Your task to perform on an android device: turn on showing notifications on the lock screen Image 0: 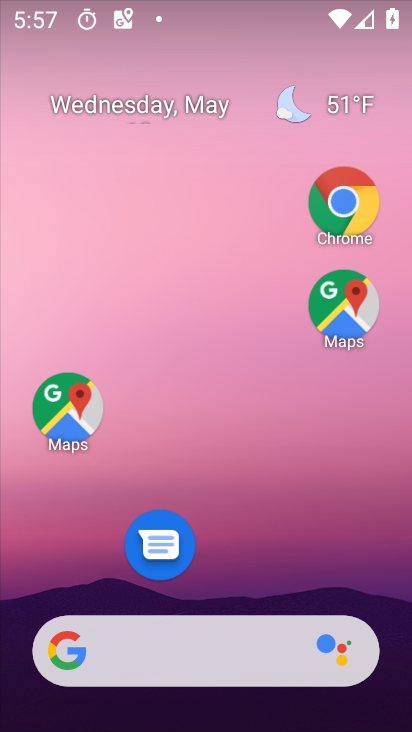
Step 0: press home button
Your task to perform on an android device: turn on showing notifications on the lock screen Image 1: 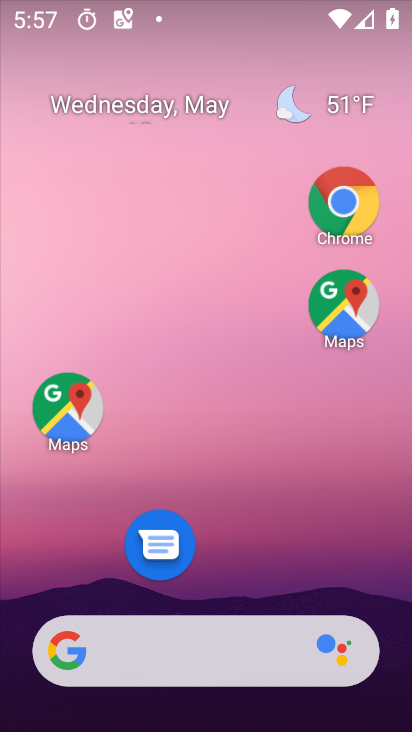
Step 1: drag from (293, 585) to (295, 239)
Your task to perform on an android device: turn on showing notifications on the lock screen Image 2: 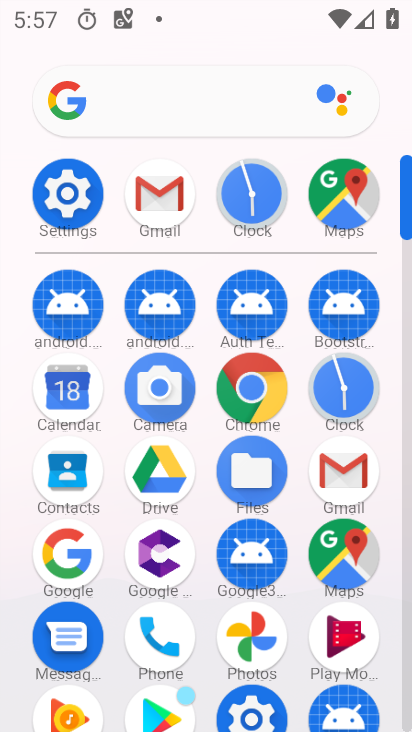
Step 2: click (69, 203)
Your task to perform on an android device: turn on showing notifications on the lock screen Image 3: 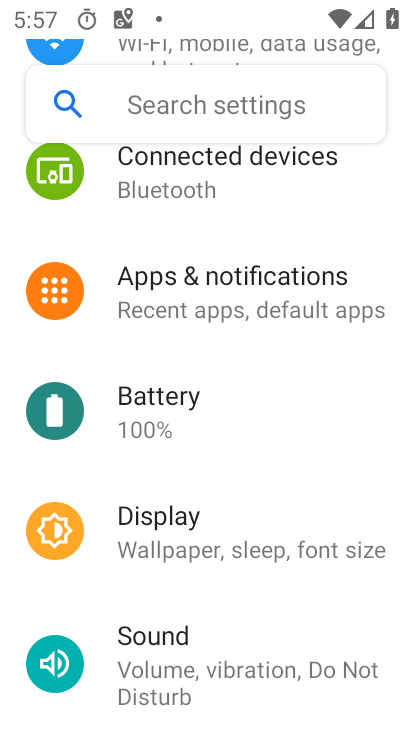
Step 3: drag from (161, 617) to (136, 331)
Your task to perform on an android device: turn on showing notifications on the lock screen Image 4: 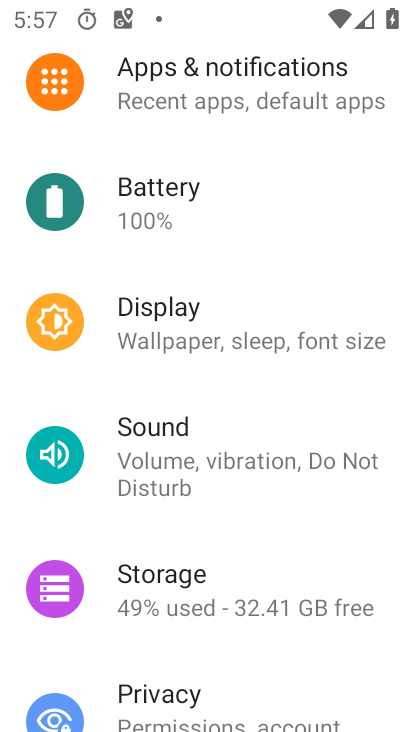
Step 4: drag from (197, 575) to (237, 245)
Your task to perform on an android device: turn on showing notifications on the lock screen Image 5: 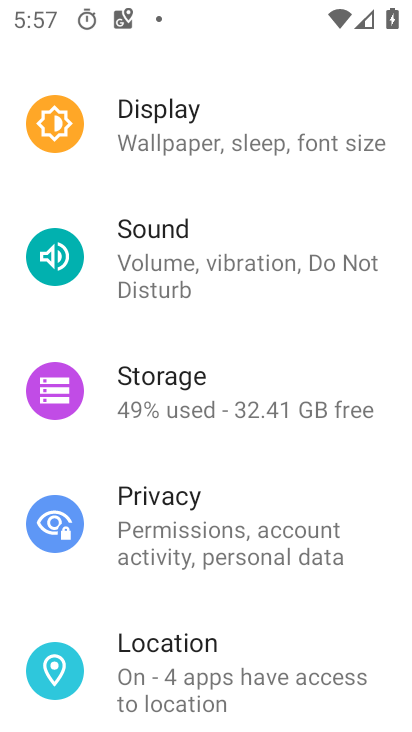
Step 5: drag from (235, 278) to (195, 590)
Your task to perform on an android device: turn on showing notifications on the lock screen Image 6: 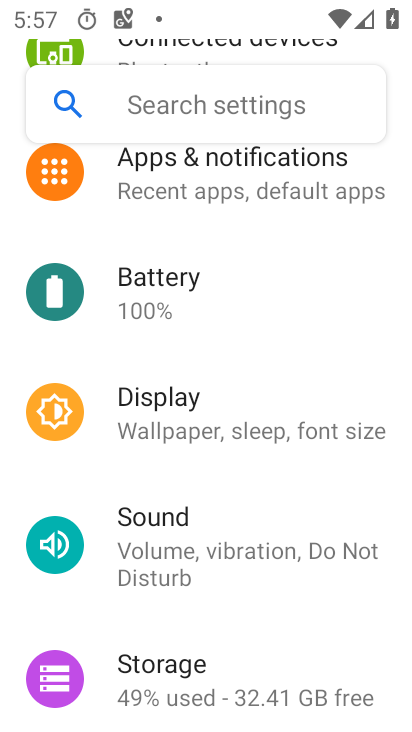
Step 6: click (183, 186)
Your task to perform on an android device: turn on showing notifications on the lock screen Image 7: 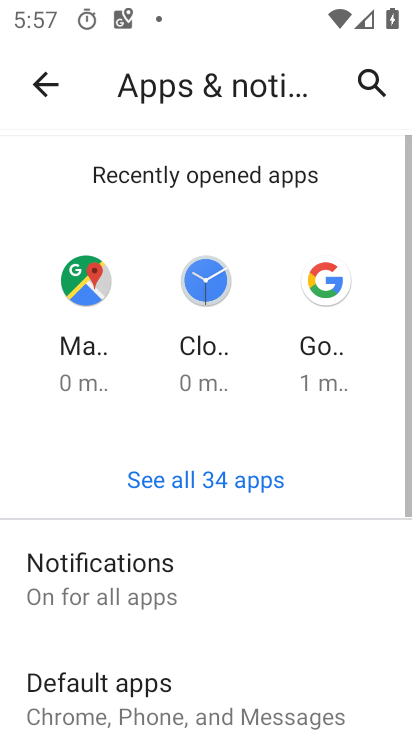
Step 7: click (100, 596)
Your task to perform on an android device: turn on showing notifications on the lock screen Image 8: 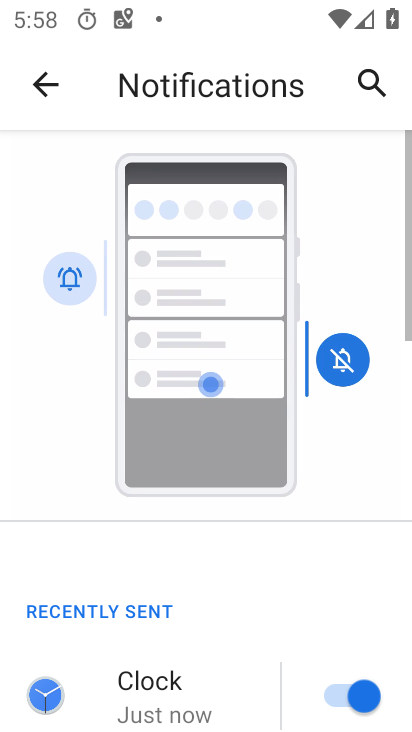
Step 8: drag from (188, 675) to (197, 335)
Your task to perform on an android device: turn on showing notifications on the lock screen Image 9: 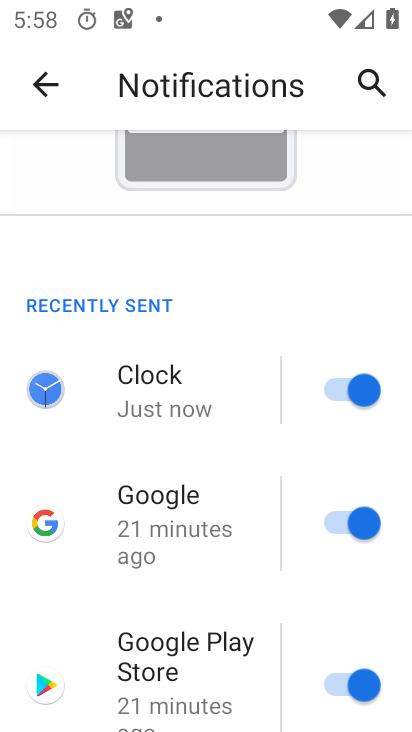
Step 9: drag from (194, 638) to (201, 285)
Your task to perform on an android device: turn on showing notifications on the lock screen Image 10: 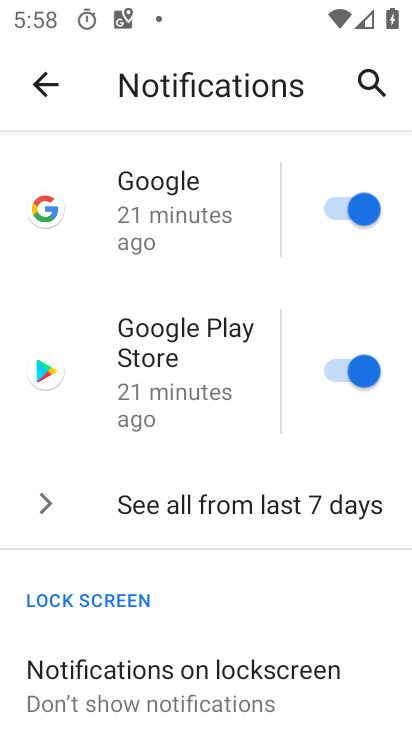
Step 10: drag from (154, 632) to (175, 380)
Your task to perform on an android device: turn on showing notifications on the lock screen Image 11: 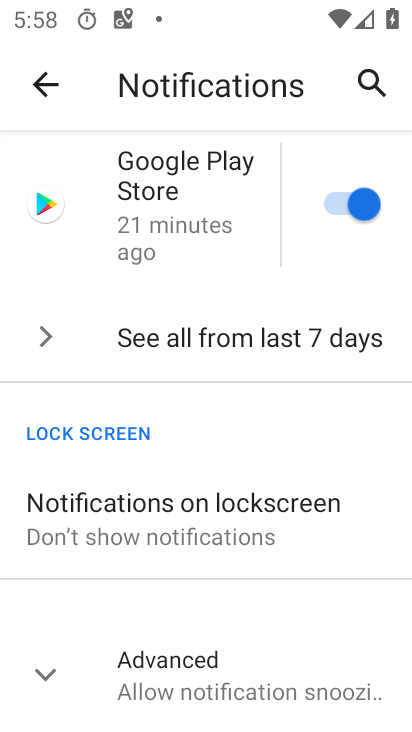
Step 11: click (146, 521)
Your task to perform on an android device: turn on showing notifications on the lock screen Image 12: 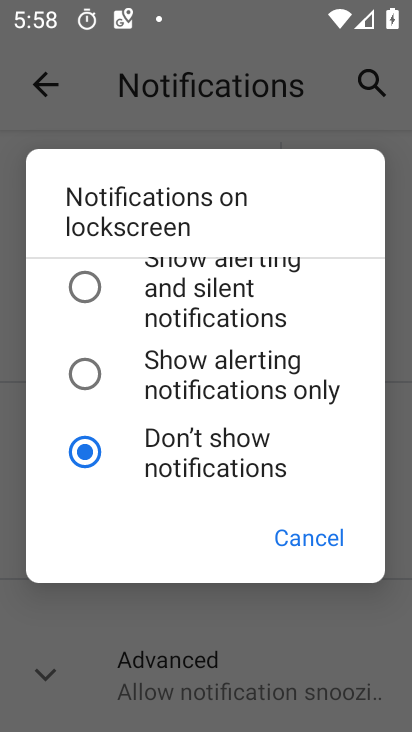
Step 12: click (91, 284)
Your task to perform on an android device: turn on showing notifications on the lock screen Image 13: 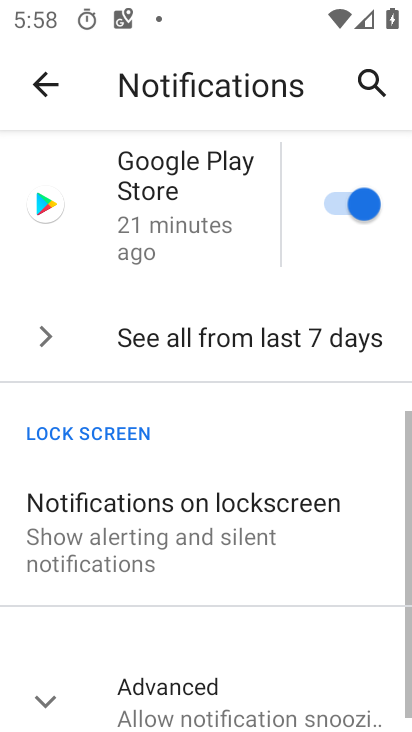
Step 13: task complete